Your task to perform on an android device: turn on translation in the chrome app Image 0: 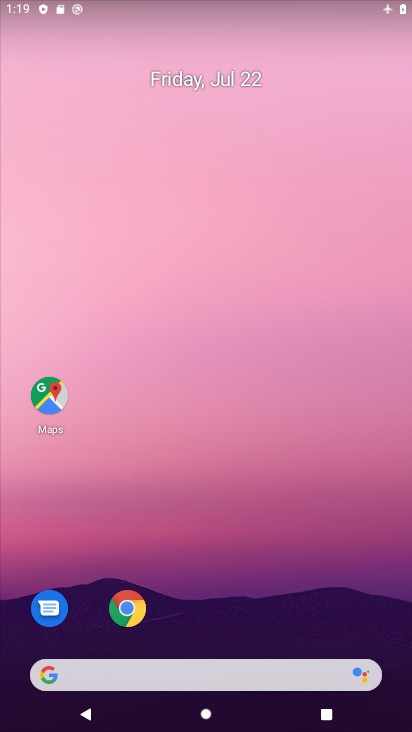
Step 0: drag from (240, 726) to (242, 142)
Your task to perform on an android device: turn on translation in the chrome app Image 1: 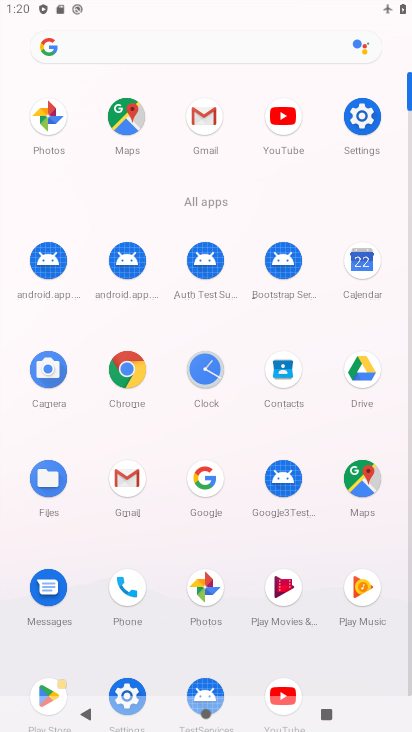
Step 1: click (125, 374)
Your task to perform on an android device: turn on translation in the chrome app Image 2: 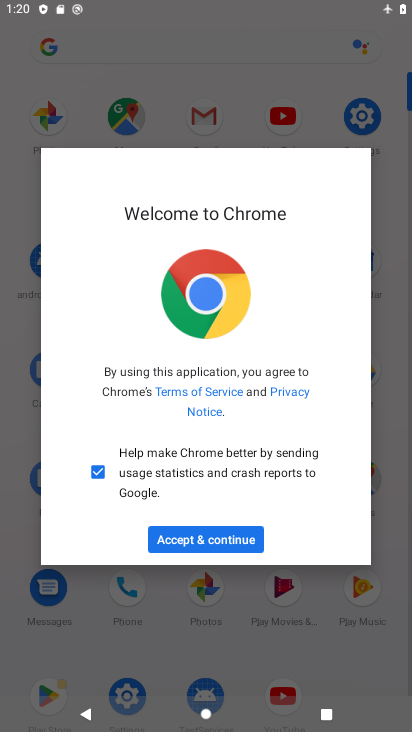
Step 2: click (184, 553)
Your task to perform on an android device: turn on translation in the chrome app Image 3: 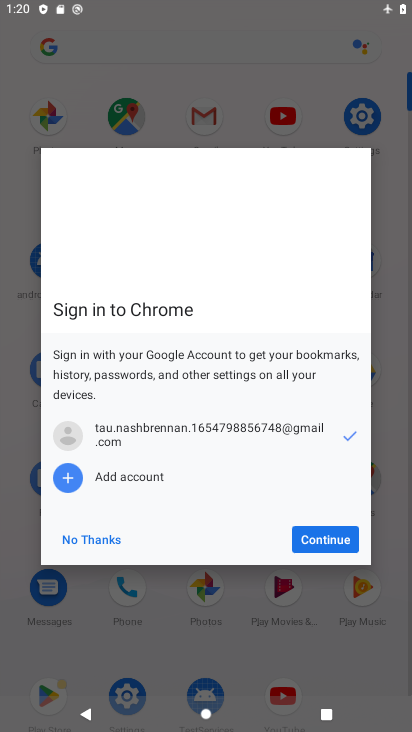
Step 3: click (314, 539)
Your task to perform on an android device: turn on translation in the chrome app Image 4: 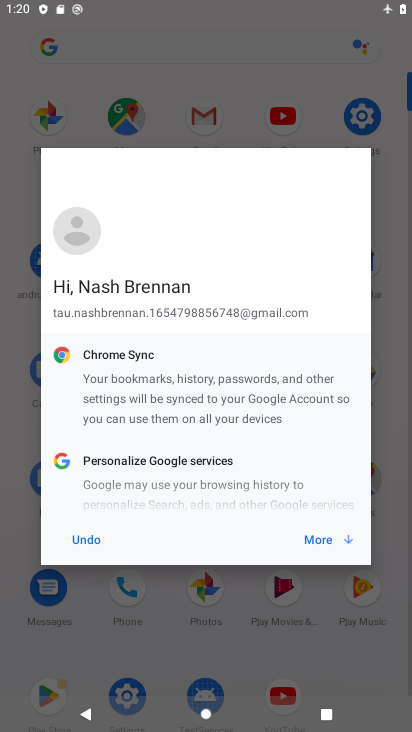
Step 4: click (314, 539)
Your task to perform on an android device: turn on translation in the chrome app Image 5: 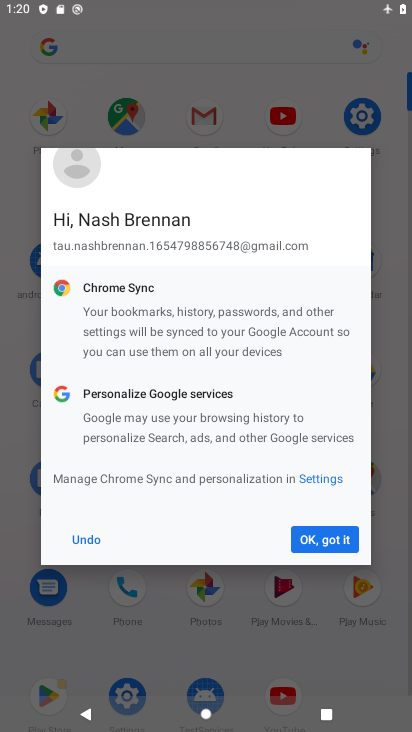
Step 5: click (314, 539)
Your task to perform on an android device: turn on translation in the chrome app Image 6: 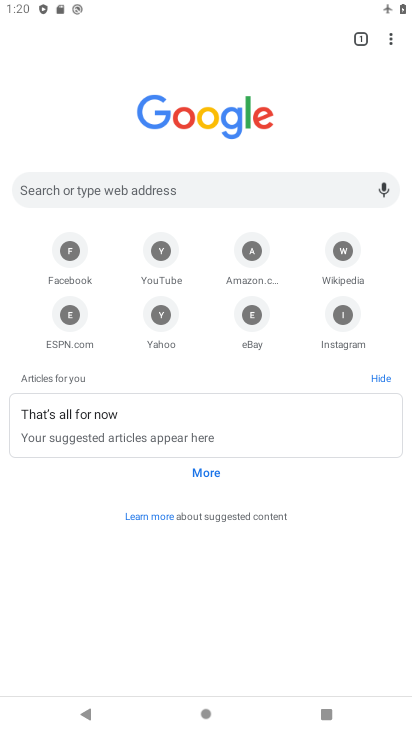
Step 6: click (391, 41)
Your task to perform on an android device: turn on translation in the chrome app Image 7: 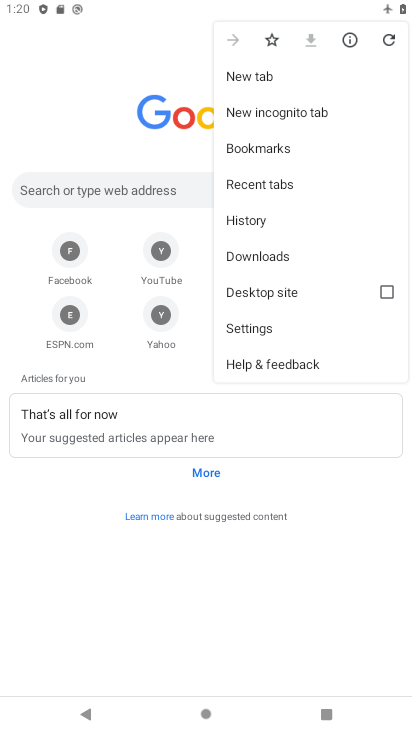
Step 7: click (253, 327)
Your task to perform on an android device: turn on translation in the chrome app Image 8: 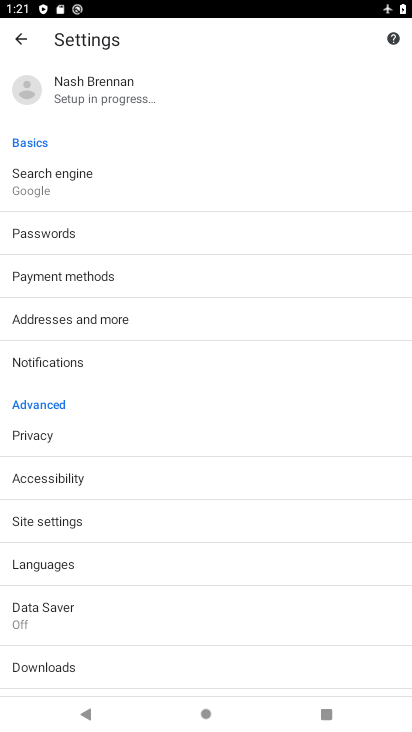
Step 8: click (34, 563)
Your task to perform on an android device: turn on translation in the chrome app Image 9: 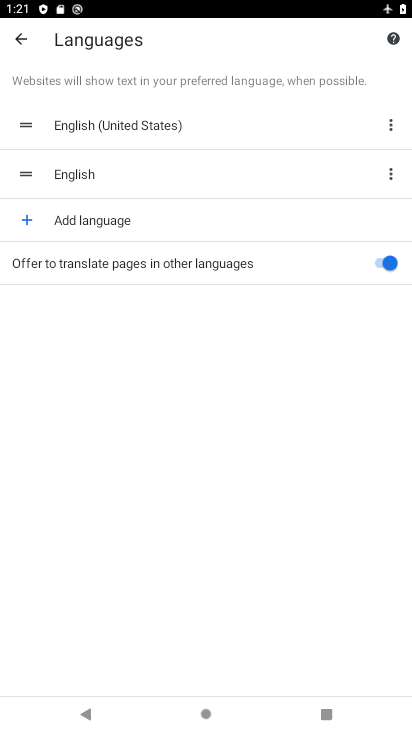
Step 9: task complete